Your task to perform on an android device: Go to Google maps Image 0: 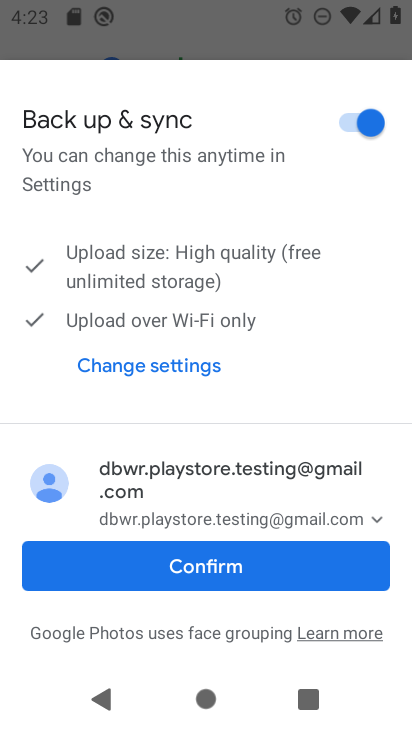
Step 0: press home button
Your task to perform on an android device: Go to Google maps Image 1: 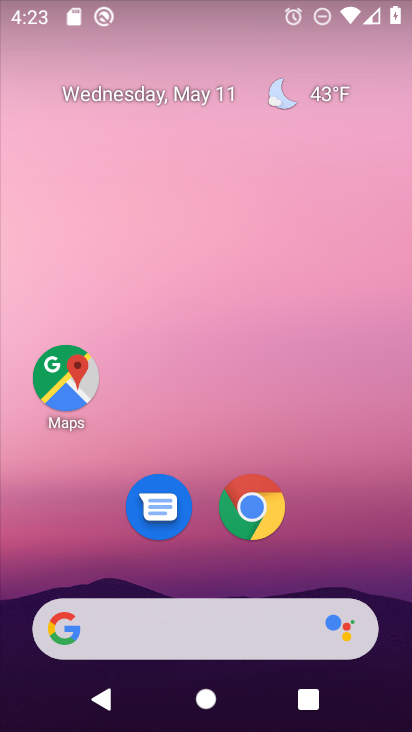
Step 1: click (64, 377)
Your task to perform on an android device: Go to Google maps Image 2: 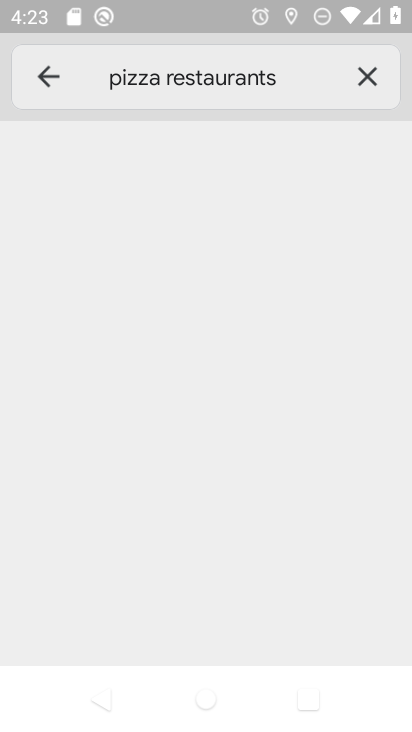
Step 2: click (365, 74)
Your task to perform on an android device: Go to Google maps Image 3: 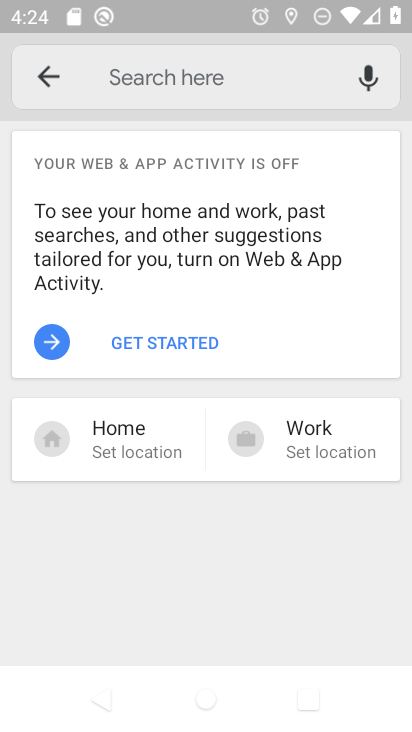
Step 3: task complete